Your task to perform on an android device: open app "Microsoft Excel" (install if not already installed) and enter user name: "kidnappers@icloud.com" and password: "Bessemerizes" Image 0: 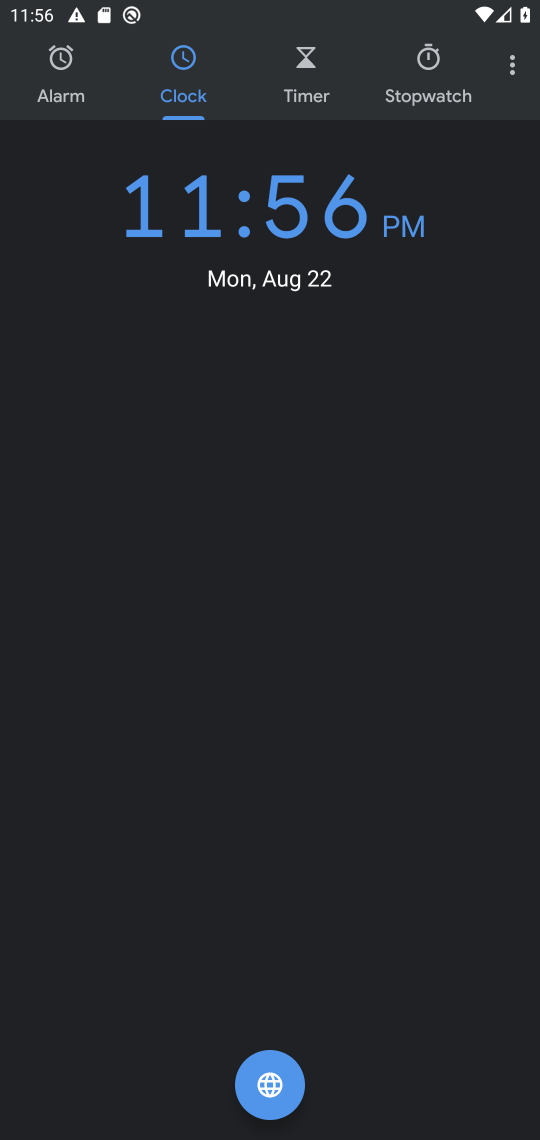
Step 0: press home button
Your task to perform on an android device: open app "Microsoft Excel" (install if not already installed) and enter user name: "kidnappers@icloud.com" and password: "Bessemerizes" Image 1: 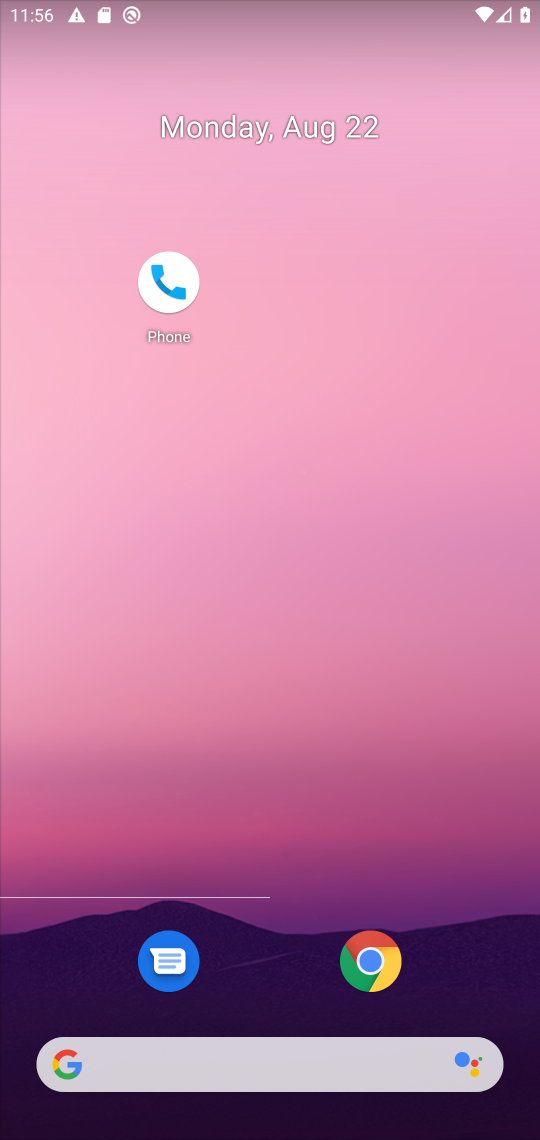
Step 1: drag from (278, 734) to (401, 171)
Your task to perform on an android device: open app "Microsoft Excel" (install if not already installed) and enter user name: "kidnappers@icloud.com" and password: "Bessemerizes" Image 2: 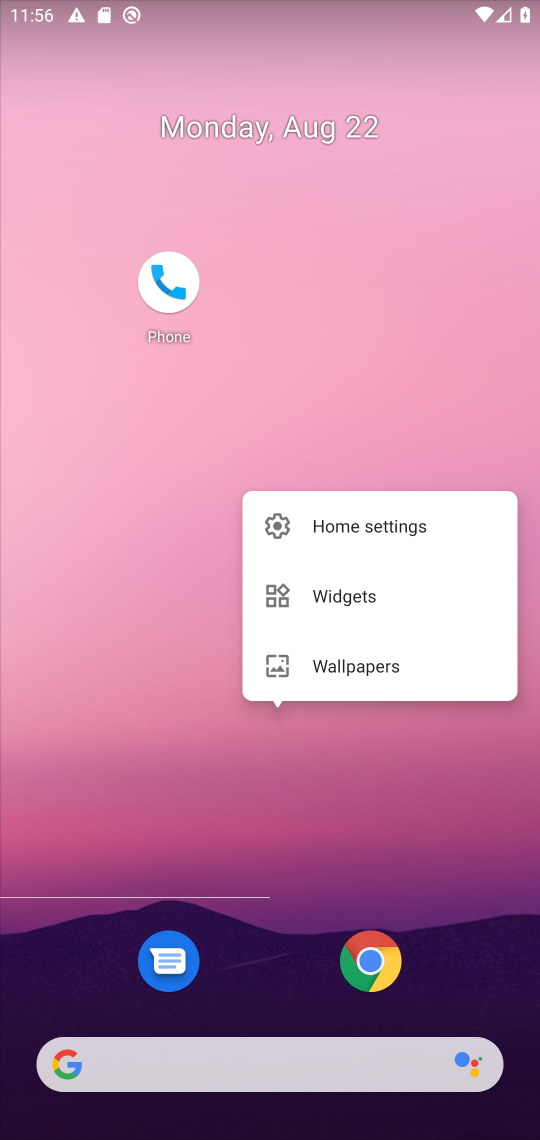
Step 2: click (264, 941)
Your task to perform on an android device: open app "Microsoft Excel" (install if not already installed) and enter user name: "kidnappers@icloud.com" and password: "Bessemerizes" Image 3: 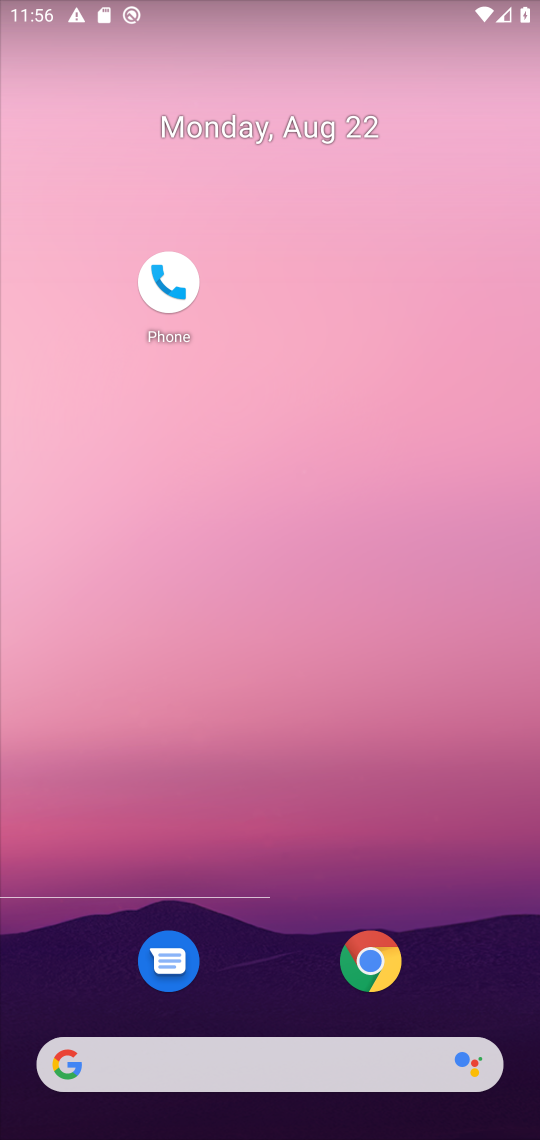
Step 3: drag from (252, 1002) to (394, 89)
Your task to perform on an android device: open app "Microsoft Excel" (install if not already installed) and enter user name: "kidnappers@icloud.com" and password: "Bessemerizes" Image 4: 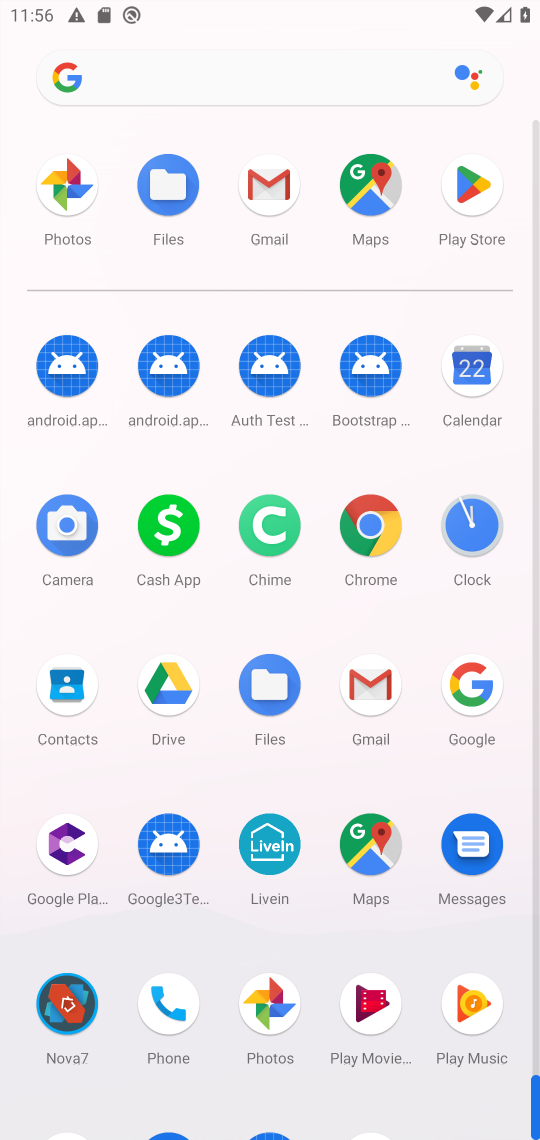
Step 4: click (465, 225)
Your task to perform on an android device: open app "Microsoft Excel" (install if not already installed) and enter user name: "kidnappers@icloud.com" and password: "Bessemerizes" Image 5: 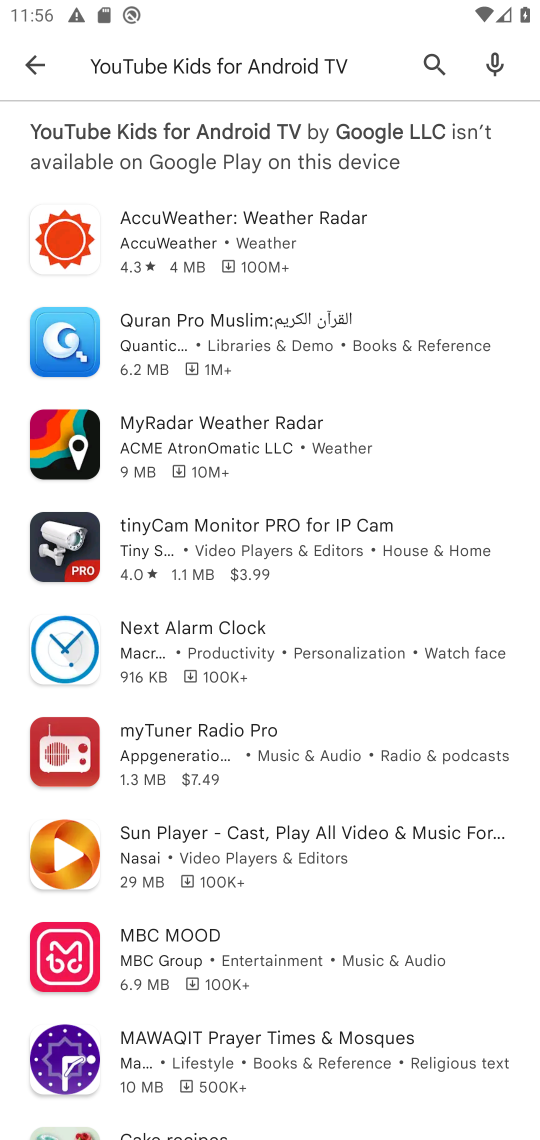
Step 5: click (452, 67)
Your task to perform on an android device: open app "Microsoft Excel" (install if not already installed) and enter user name: "kidnappers@icloud.com" and password: "Bessemerizes" Image 6: 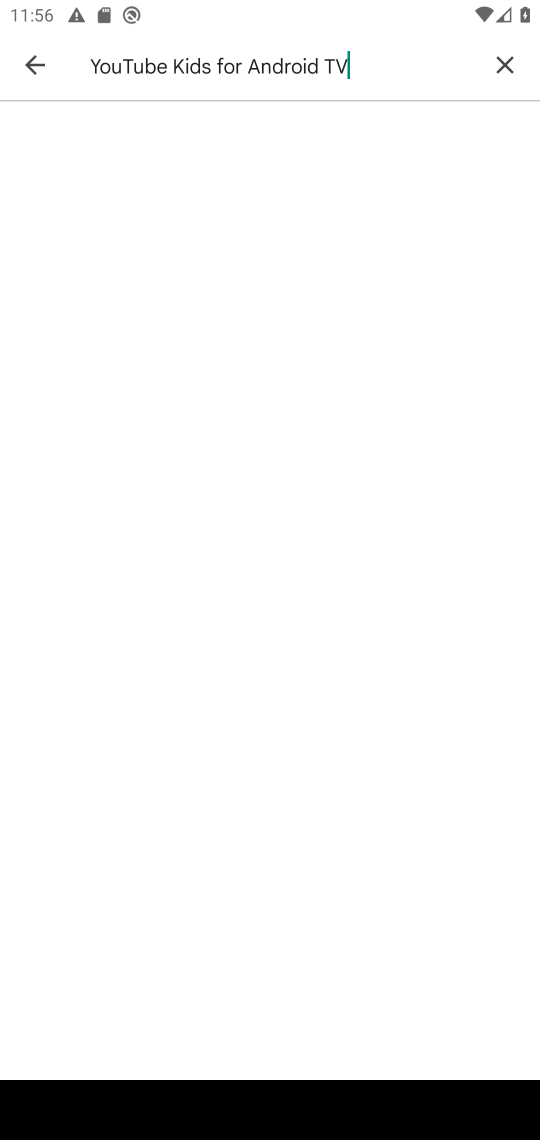
Step 6: click (517, 64)
Your task to perform on an android device: open app "Microsoft Excel" (install if not already installed) and enter user name: "kidnappers@icloud.com" and password: "Bessemerizes" Image 7: 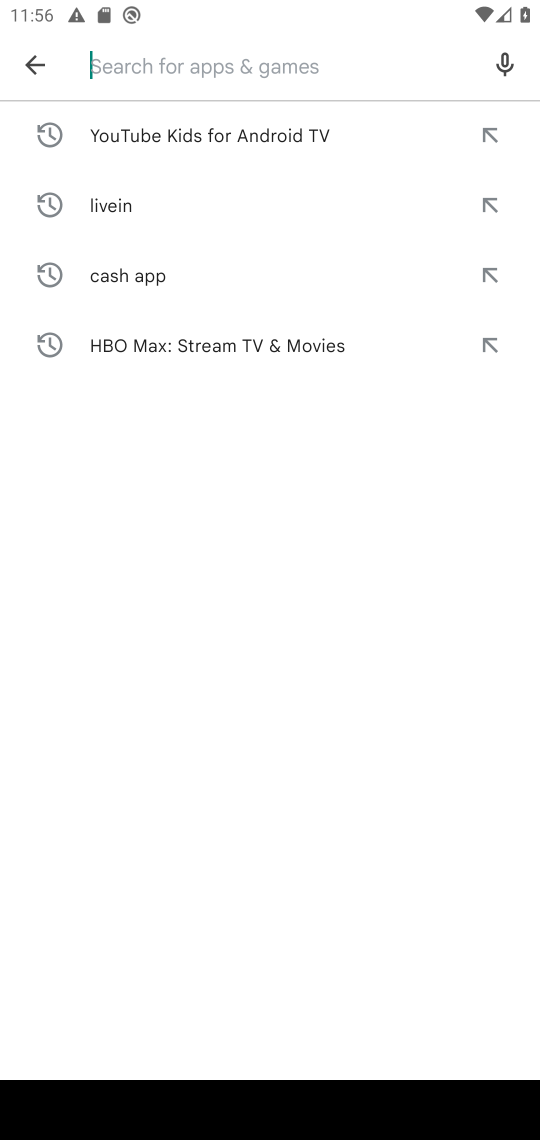
Step 7: type "excel"
Your task to perform on an android device: open app "Microsoft Excel" (install if not already installed) and enter user name: "kidnappers@icloud.com" and password: "Bessemerizes" Image 8: 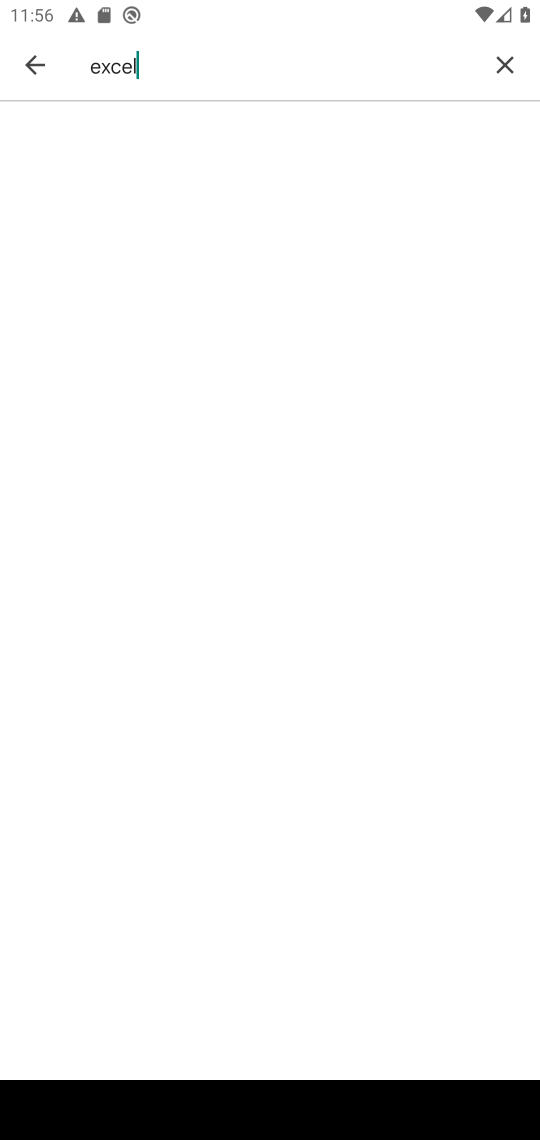
Step 8: task complete